Your task to perform on an android device: turn off picture-in-picture Image 0: 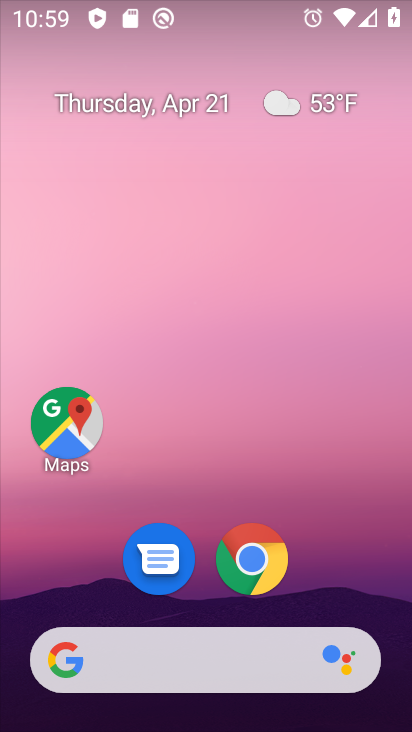
Step 0: drag from (247, 617) to (279, 157)
Your task to perform on an android device: turn off picture-in-picture Image 1: 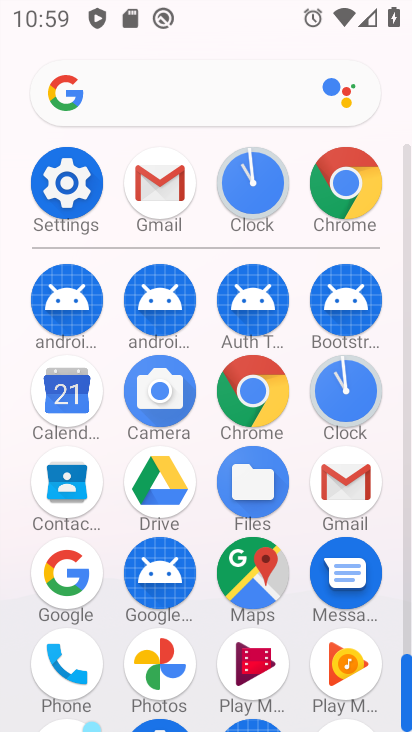
Step 1: click (67, 197)
Your task to perform on an android device: turn off picture-in-picture Image 2: 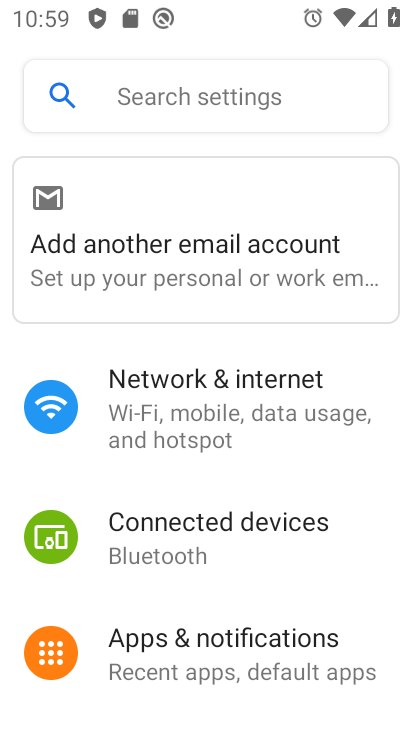
Step 2: click (192, 100)
Your task to perform on an android device: turn off picture-in-picture Image 3: 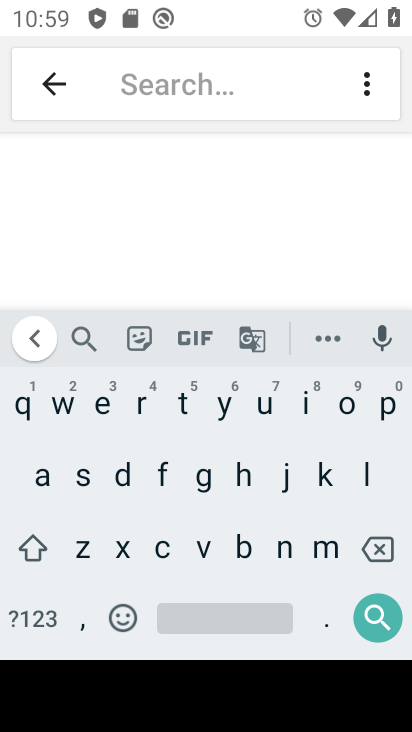
Step 3: click (384, 413)
Your task to perform on an android device: turn off picture-in-picture Image 4: 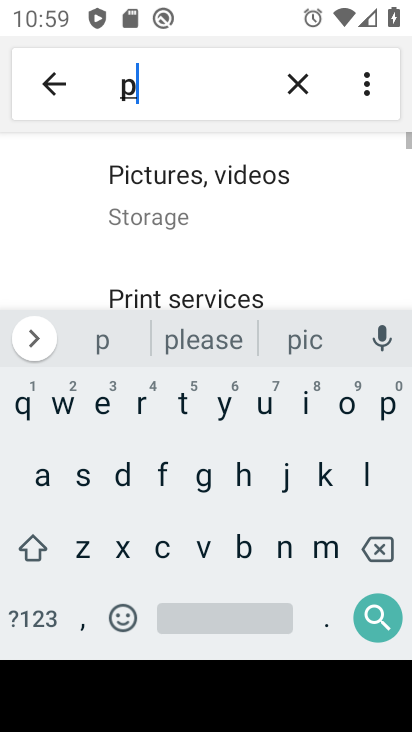
Step 4: click (303, 411)
Your task to perform on an android device: turn off picture-in-picture Image 5: 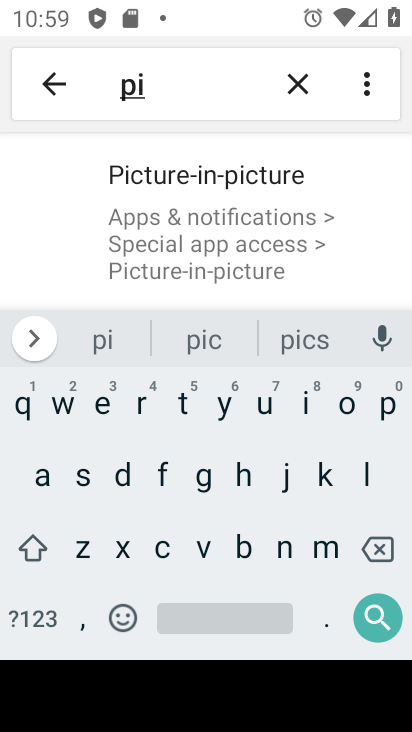
Step 5: click (273, 227)
Your task to perform on an android device: turn off picture-in-picture Image 6: 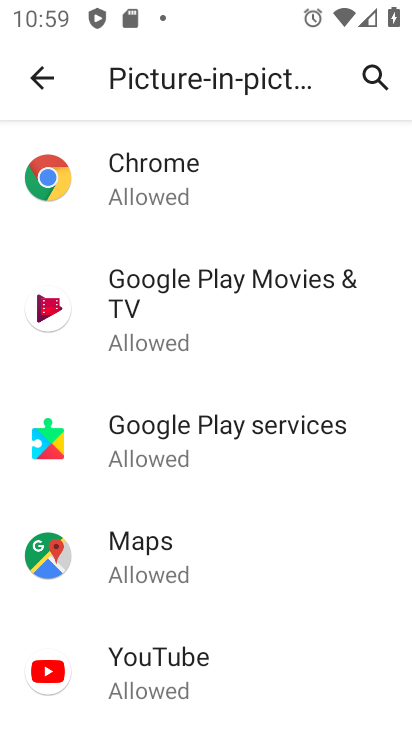
Step 6: task complete